Your task to perform on an android device: clear all cookies in the chrome app Image 0: 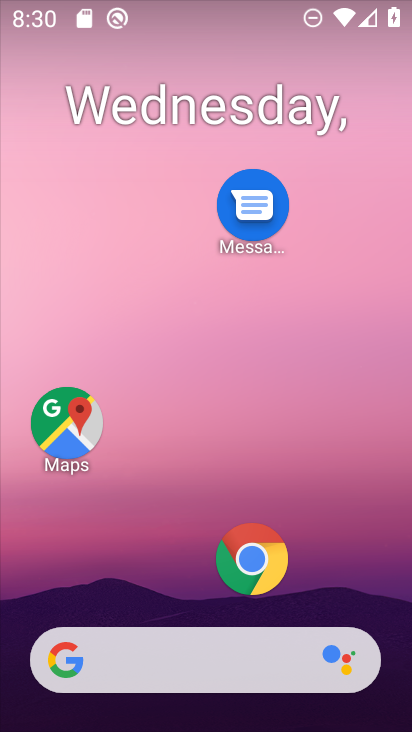
Step 0: drag from (218, 650) to (275, 163)
Your task to perform on an android device: clear all cookies in the chrome app Image 1: 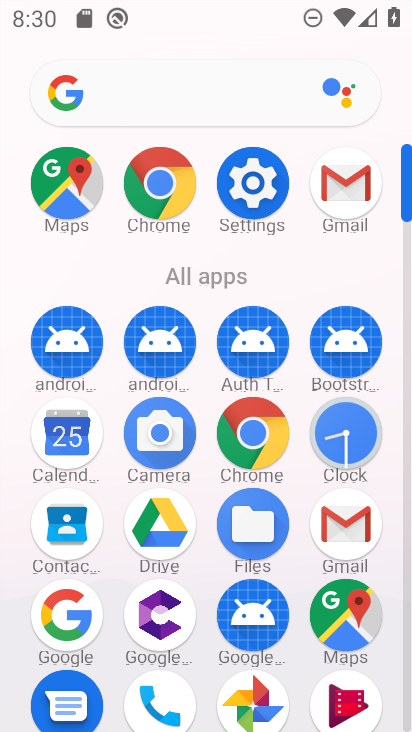
Step 1: click (150, 220)
Your task to perform on an android device: clear all cookies in the chrome app Image 2: 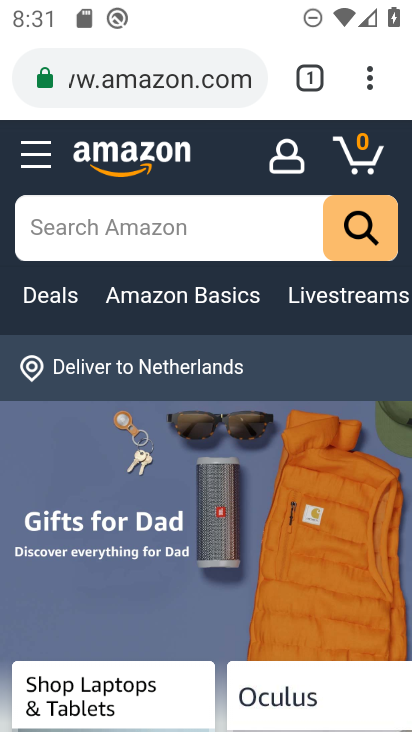
Step 2: click (365, 82)
Your task to perform on an android device: clear all cookies in the chrome app Image 3: 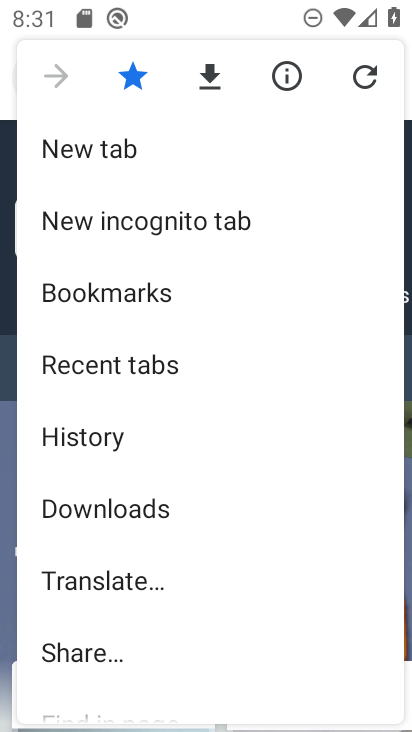
Step 3: drag from (175, 551) to (175, 392)
Your task to perform on an android device: clear all cookies in the chrome app Image 4: 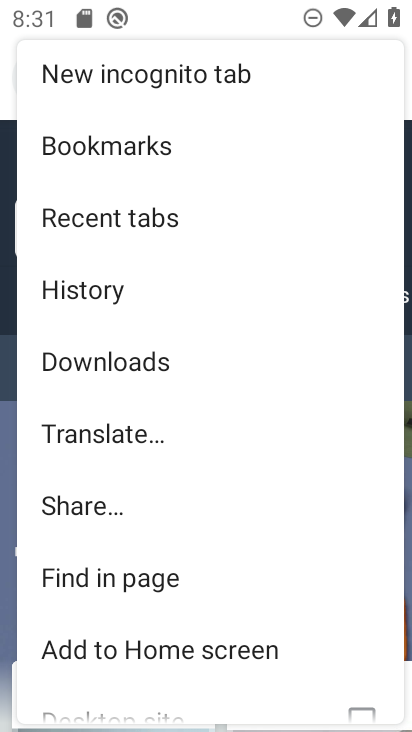
Step 4: click (134, 300)
Your task to perform on an android device: clear all cookies in the chrome app Image 5: 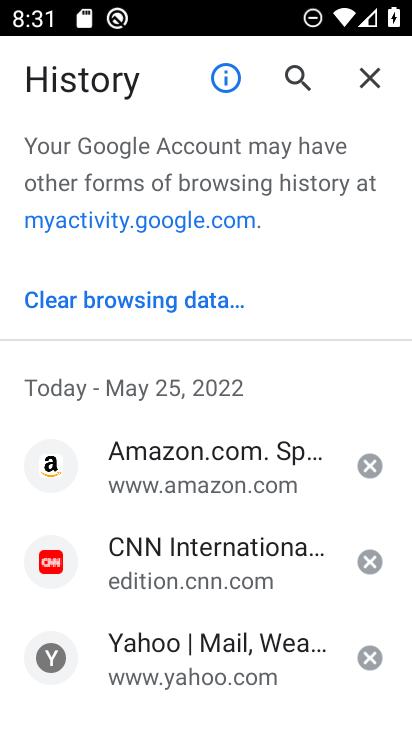
Step 5: click (145, 310)
Your task to perform on an android device: clear all cookies in the chrome app Image 6: 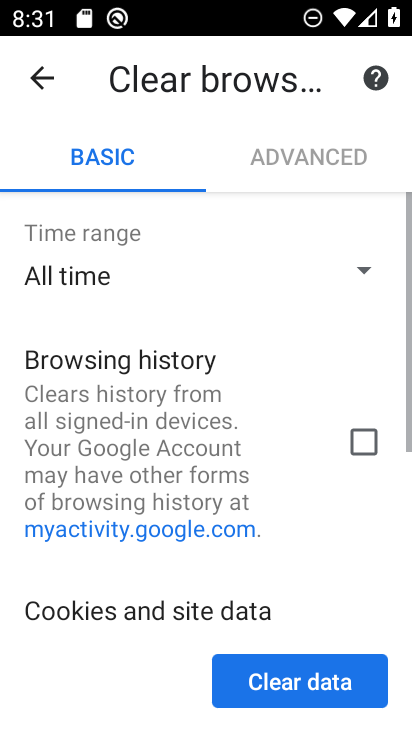
Step 6: drag from (255, 501) to (230, 292)
Your task to perform on an android device: clear all cookies in the chrome app Image 7: 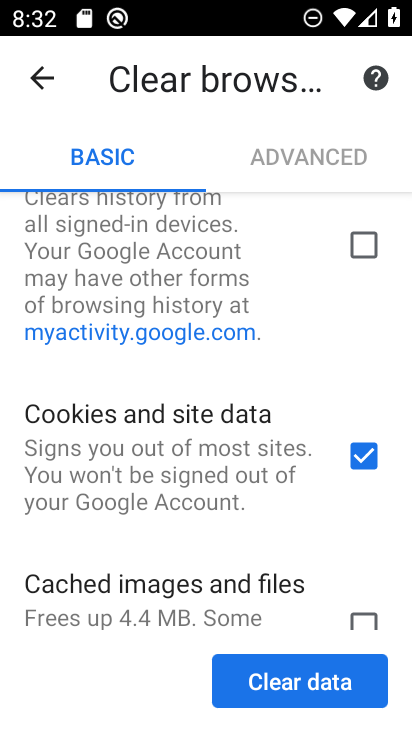
Step 7: click (335, 681)
Your task to perform on an android device: clear all cookies in the chrome app Image 8: 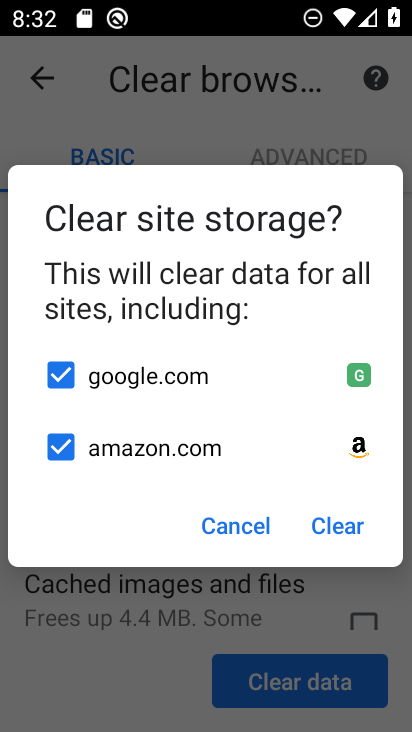
Step 8: click (329, 533)
Your task to perform on an android device: clear all cookies in the chrome app Image 9: 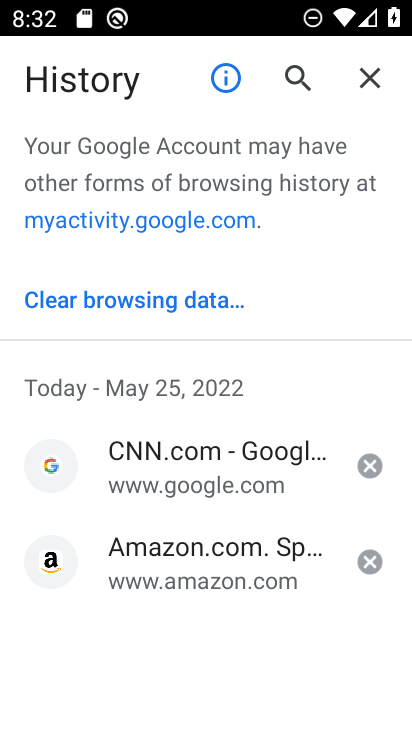
Step 9: task complete